Your task to perform on an android device: add a contact in the contacts app Image 0: 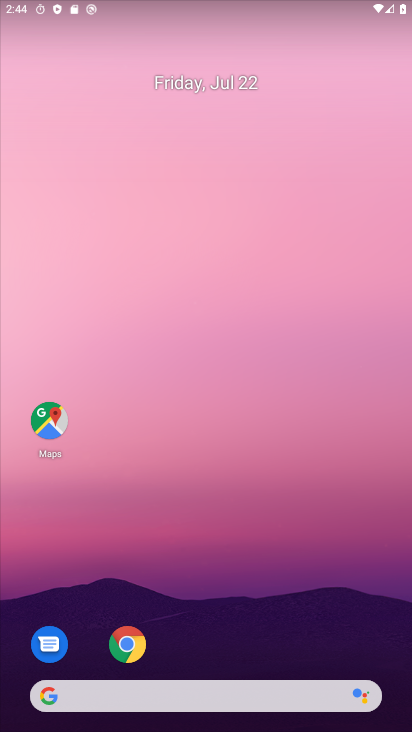
Step 0: press home button
Your task to perform on an android device: add a contact in the contacts app Image 1: 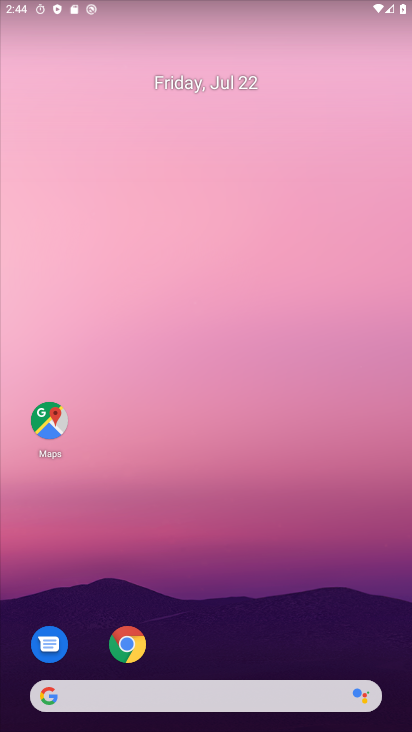
Step 1: drag from (205, 644) to (206, 108)
Your task to perform on an android device: add a contact in the contacts app Image 2: 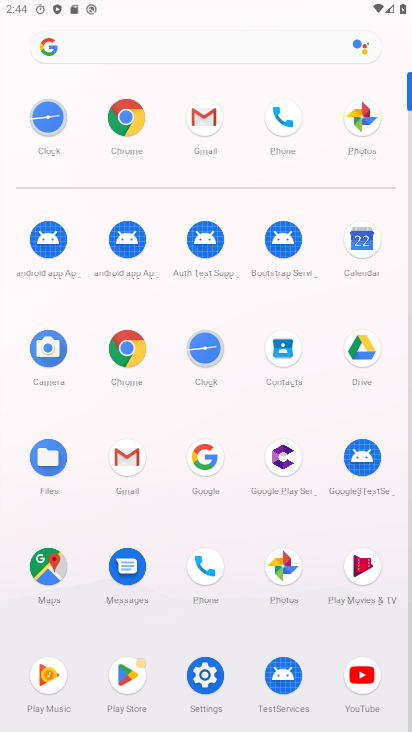
Step 2: click (286, 346)
Your task to perform on an android device: add a contact in the contacts app Image 3: 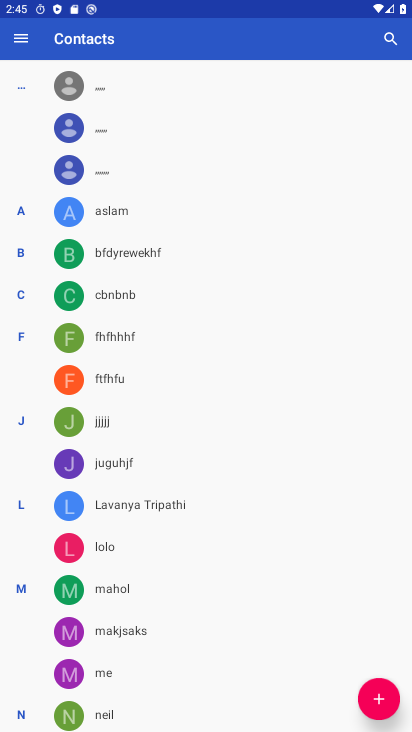
Step 3: click (378, 697)
Your task to perform on an android device: add a contact in the contacts app Image 4: 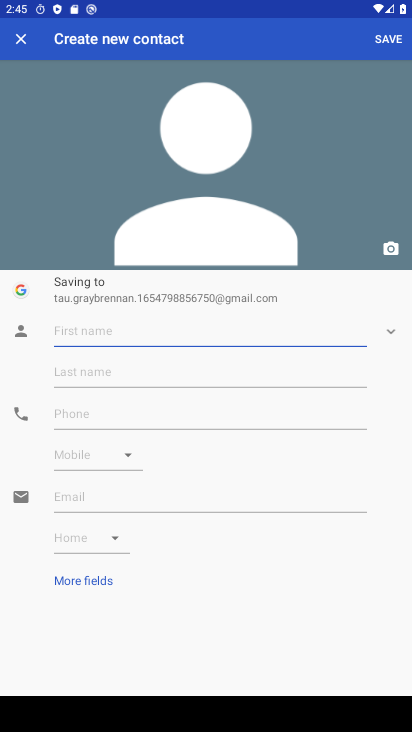
Step 4: type "mm,m,"
Your task to perform on an android device: add a contact in the contacts app Image 5: 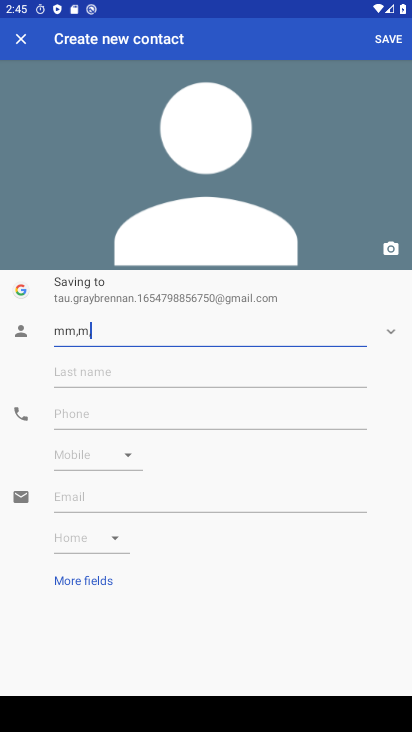
Step 5: click (78, 405)
Your task to perform on an android device: add a contact in the contacts app Image 6: 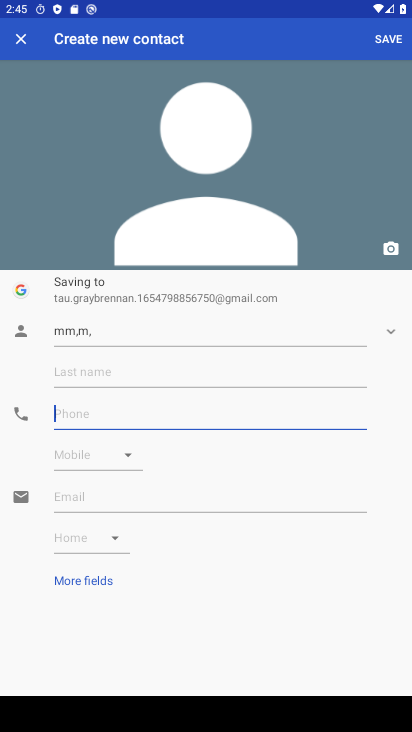
Step 6: type "9898989"
Your task to perform on an android device: add a contact in the contacts app Image 7: 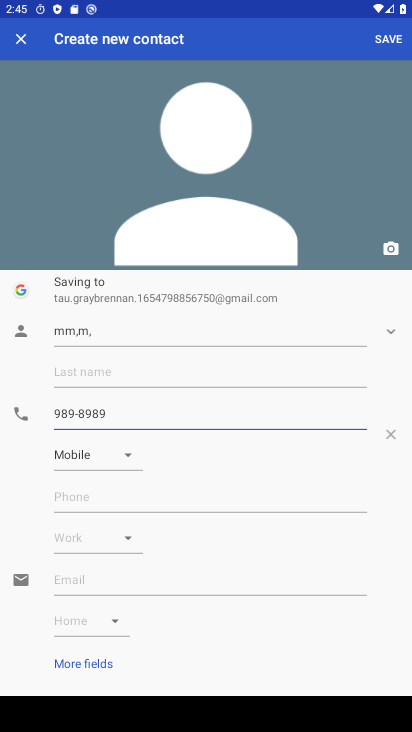
Step 7: click (382, 39)
Your task to perform on an android device: add a contact in the contacts app Image 8: 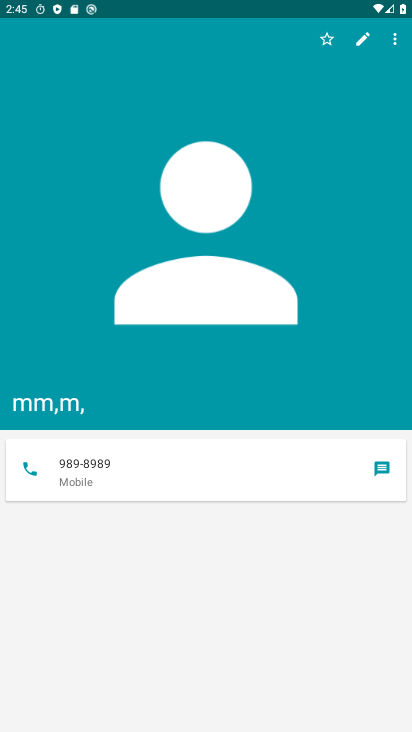
Step 8: task complete